Your task to perform on an android device: toggle data saver in the chrome app Image 0: 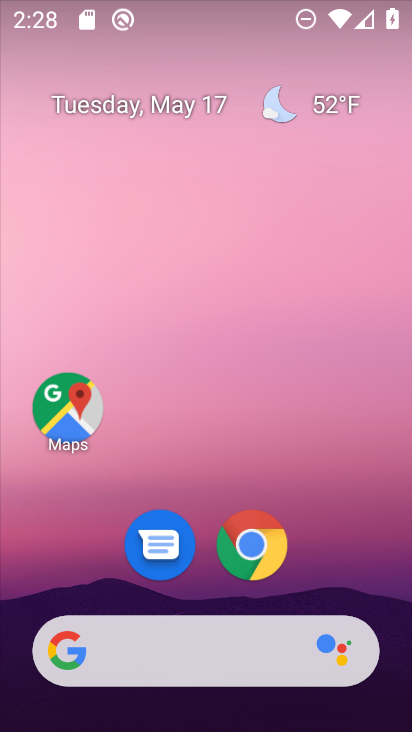
Step 0: drag from (375, 577) to (361, 135)
Your task to perform on an android device: toggle data saver in the chrome app Image 1: 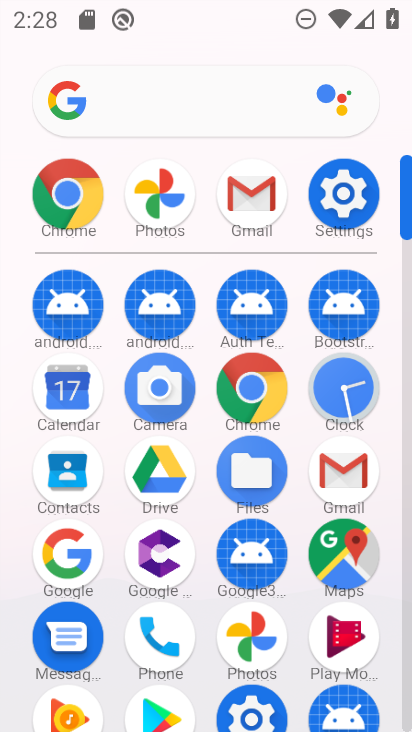
Step 1: click (237, 389)
Your task to perform on an android device: toggle data saver in the chrome app Image 2: 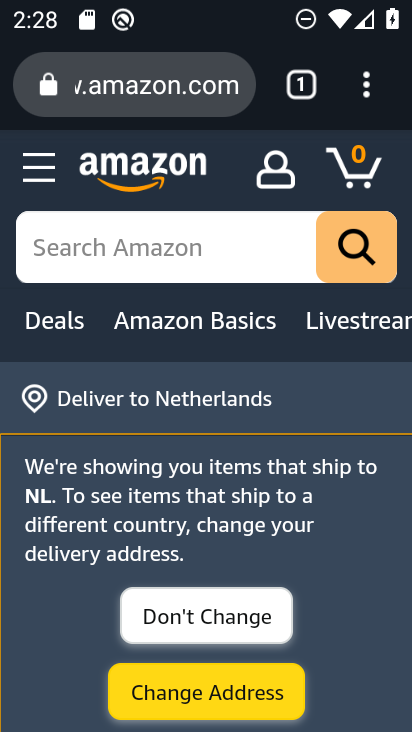
Step 2: click (370, 85)
Your task to perform on an android device: toggle data saver in the chrome app Image 3: 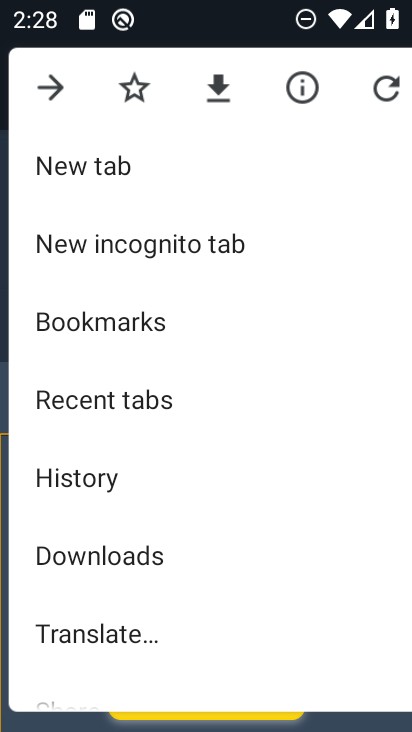
Step 3: drag from (313, 581) to (327, 458)
Your task to perform on an android device: toggle data saver in the chrome app Image 4: 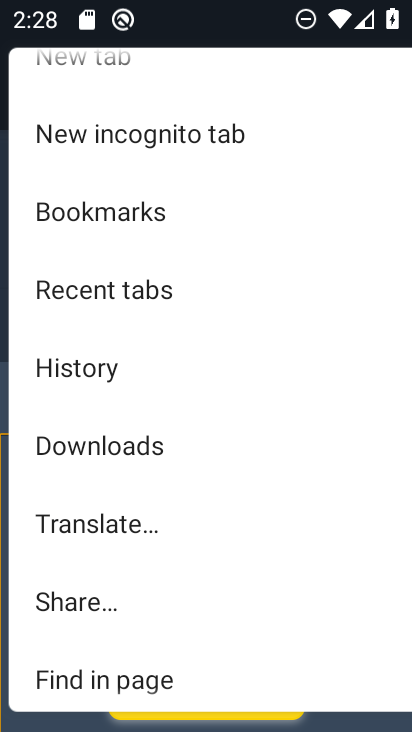
Step 4: drag from (285, 620) to (292, 507)
Your task to perform on an android device: toggle data saver in the chrome app Image 5: 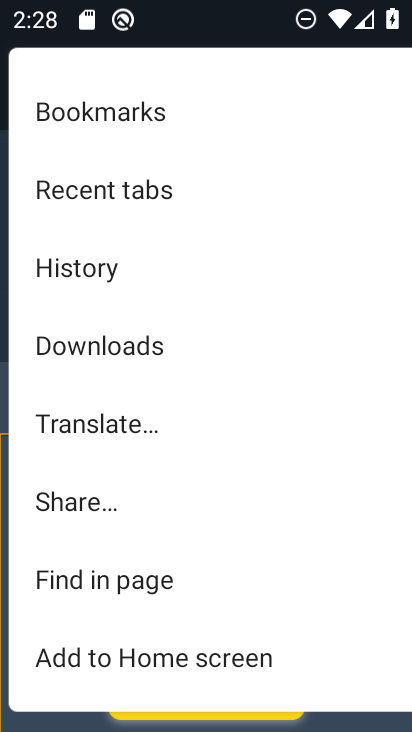
Step 5: drag from (300, 633) to (306, 538)
Your task to perform on an android device: toggle data saver in the chrome app Image 6: 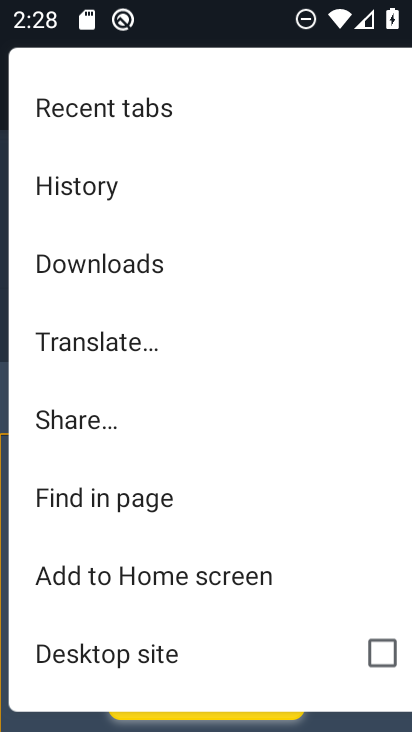
Step 6: drag from (298, 638) to (304, 529)
Your task to perform on an android device: toggle data saver in the chrome app Image 7: 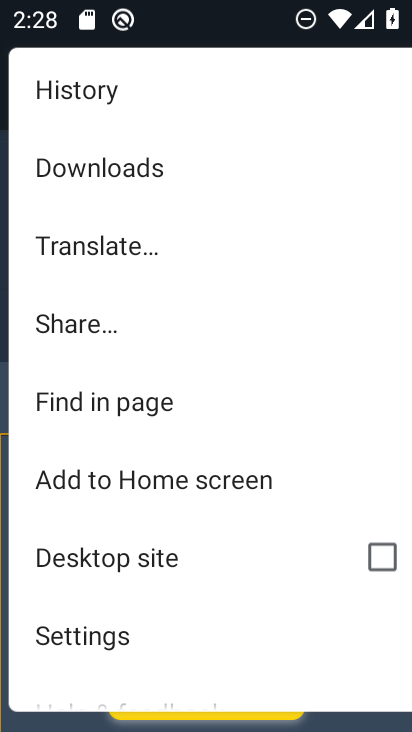
Step 7: drag from (282, 632) to (290, 560)
Your task to perform on an android device: toggle data saver in the chrome app Image 8: 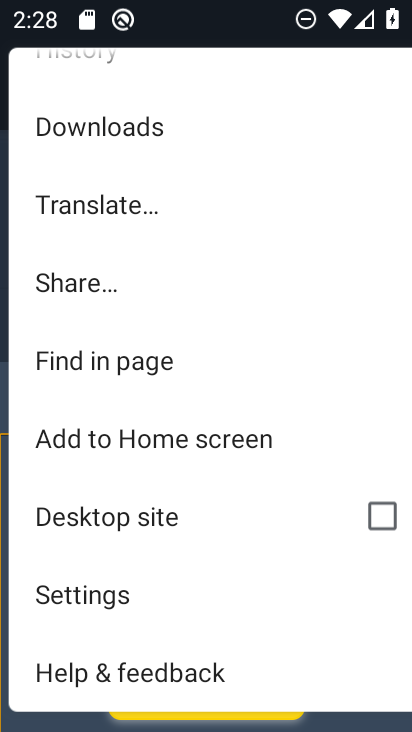
Step 8: click (135, 605)
Your task to perform on an android device: toggle data saver in the chrome app Image 9: 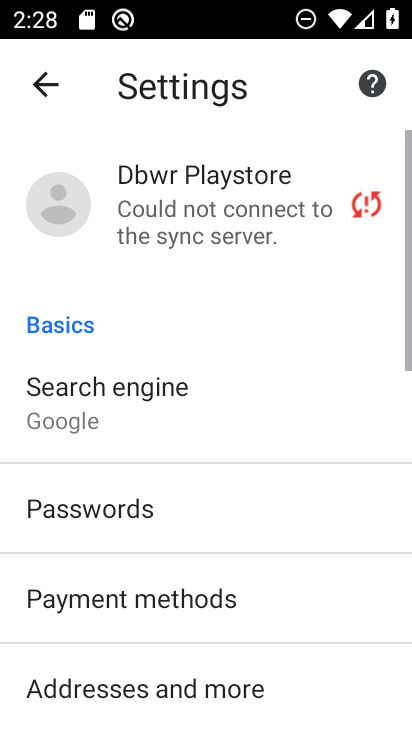
Step 9: drag from (314, 647) to (317, 566)
Your task to perform on an android device: toggle data saver in the chrome app Image 10: 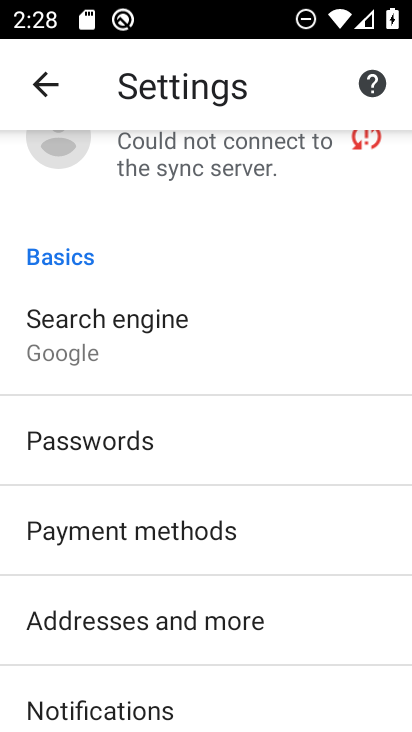
Step 10: drag from (301, 680) to (309, 593)
Your task to perform on an android device: toggle data saver in the chrome app Image 11: 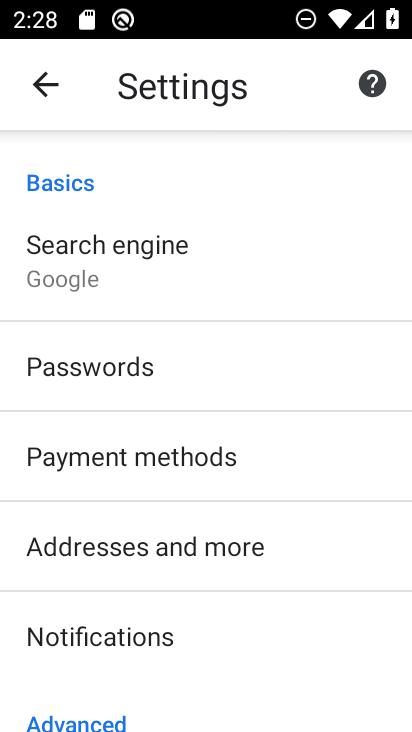
Step 11: drag from (307, 682) to (310, 591)
Your task to perform on an android device: toggle data saver in the chrome app Image 12: 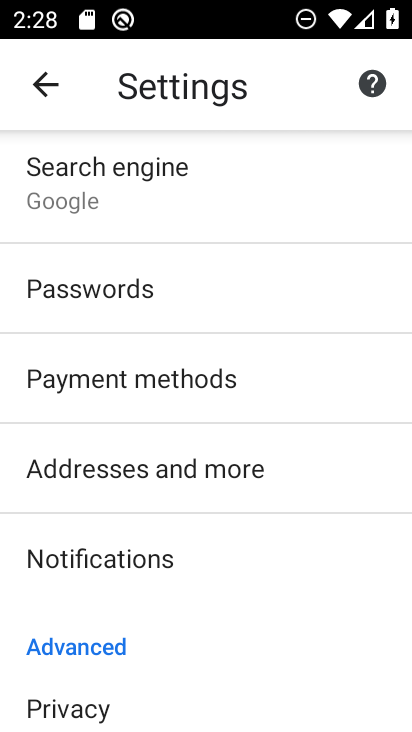
Step 12: drag from (296, 675) to (300, 590)
Your task to perform on an android device: toggle data saver in the chrome app Image 13: 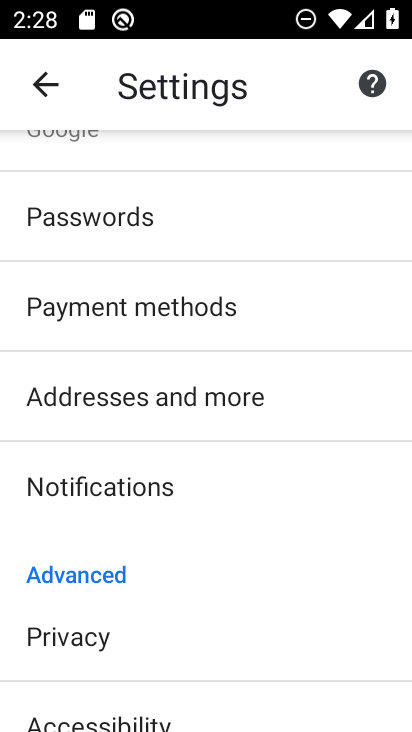
Step 13: drag from (284, 691) to (288, 604)
Your task to perform on an android device: toggle data saver in the chrome app Image 14: 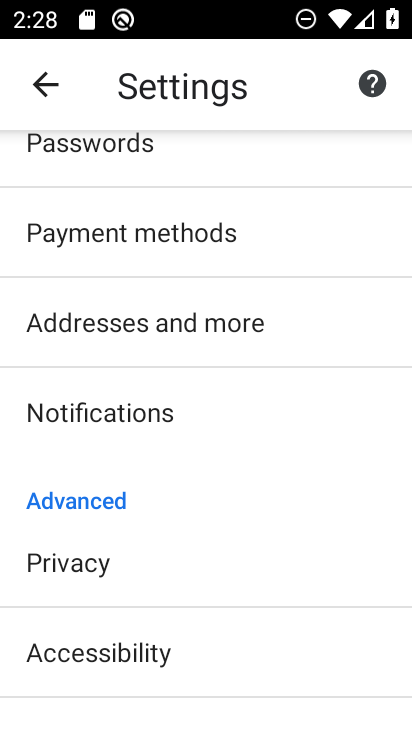
Step 14: drag from (279, 687) to (281, 608)
Your task to perform on an android device: toggle data saver in the chrome app Image 15: 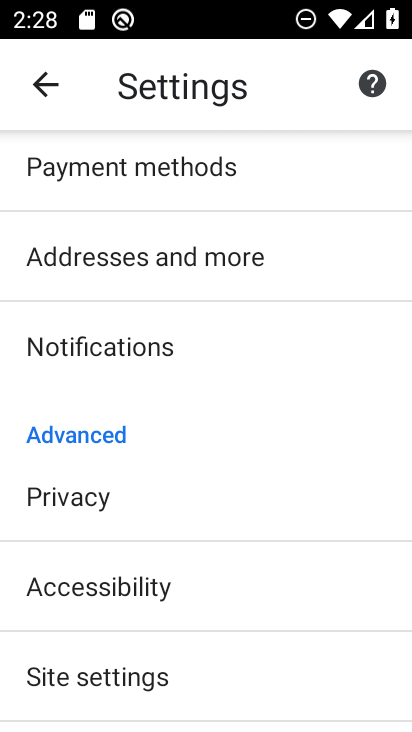
Step 15: drag from (268, 657) to (267, 571)
Your task to perform on an android device: toggle data saver in the chrome app Image 16: 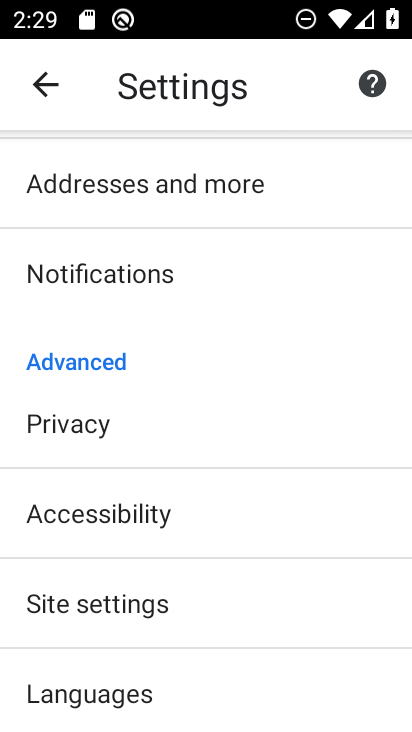
Step 16: drag from (262, 684) to (262, 602)
Your task to perform on an android device: toggle data saver in the chrome app Image 17: 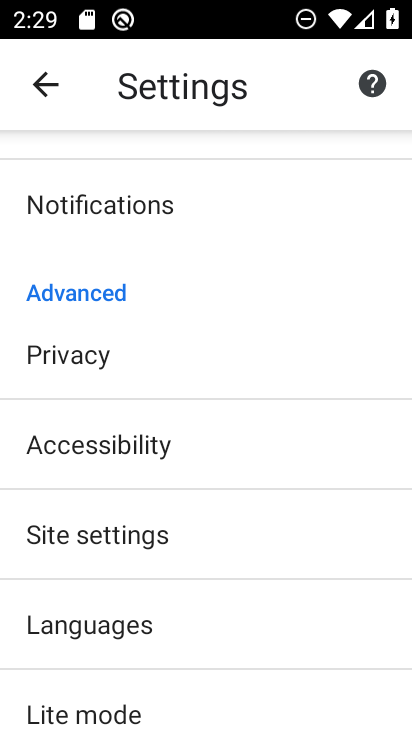
Step 17: drag from (271, 681) to (279, 592)
Your task to perform on an android device: toggle data saver in the chrome app Image 18: 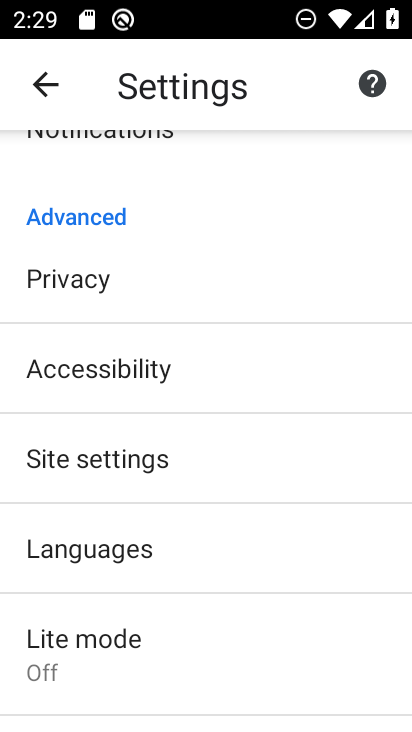
Step 18: drag from (277, 676) to (279, 581)
Your task to perform on an android device: toggle data saver in the chrome app Image 19: 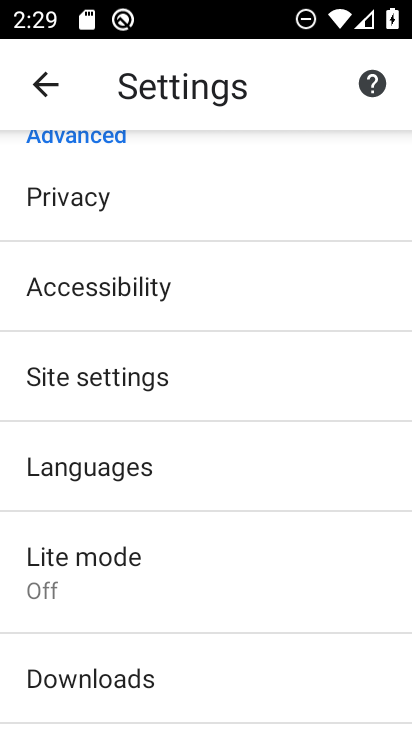
Step 19: drag from (262, 691) to (269, 595)
Your task to perform on an android device: toggle data saver in the chrome app Image 20: 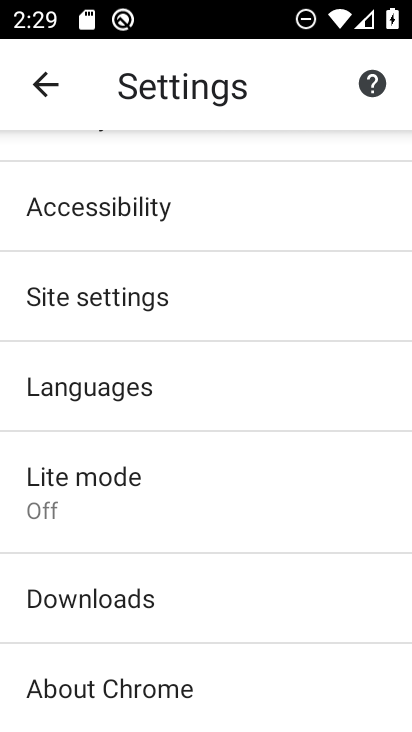
Step 20: drag from (275, 675) to (277, 607)
Your task to perform on an android device: toggle data saver in the chrome app Image 21: 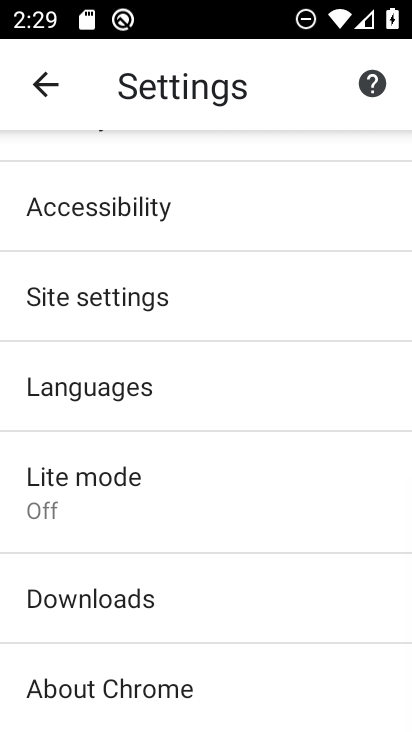
Step 21: click (173, 488)
Your task to perform on an android device: toggle data saver in the chrome app Image 22: 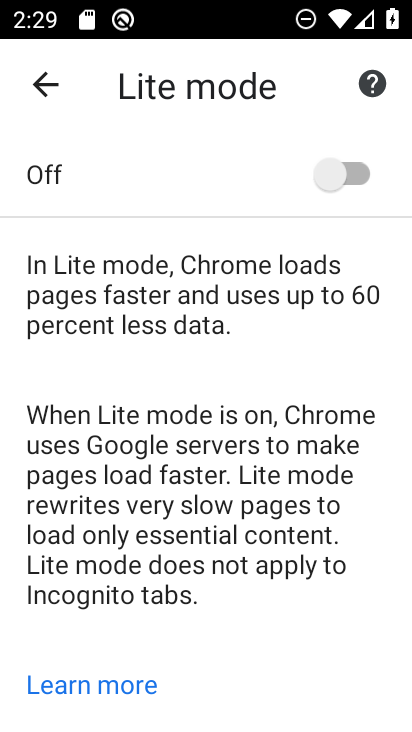
Step 22: click (334, 188)
Your task to perform on an android device: toggle data saver in the chrome app Image 23: 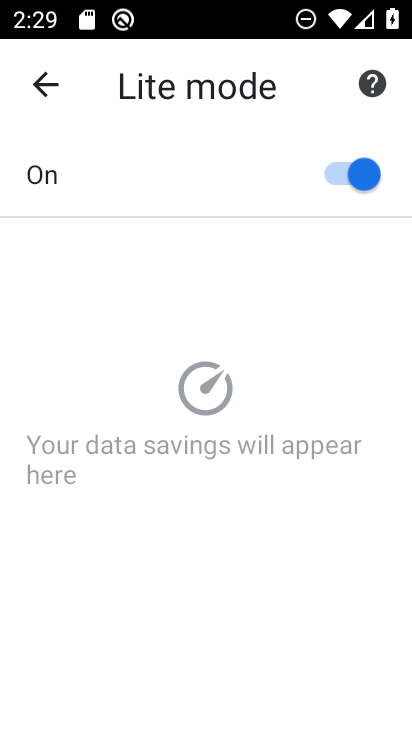
Step 23: task complete